Your task to perform on an android device: turn on data saver in the chrome app Image 0: 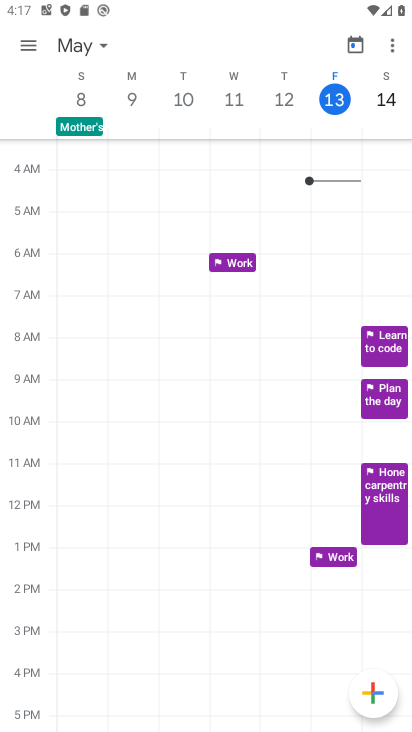
Step 0: press back button
Your task to perform on an android device: turn on data saver in the chrome app Image 1: 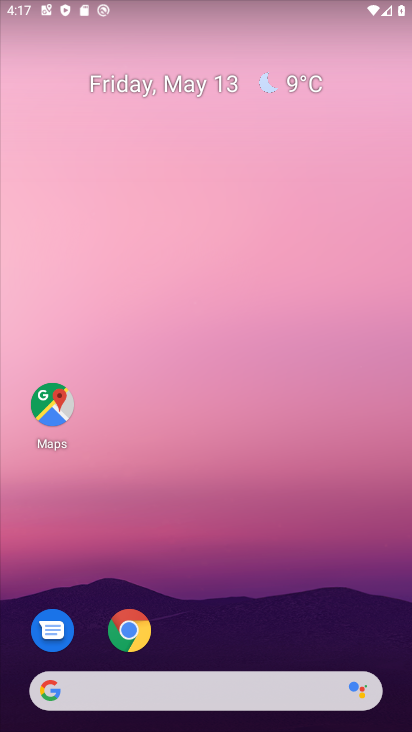
Step 1: drag from (246, 589) to (227, 51)
Your task to perform on an android device: turn on data saver in the chrome app Image 2: 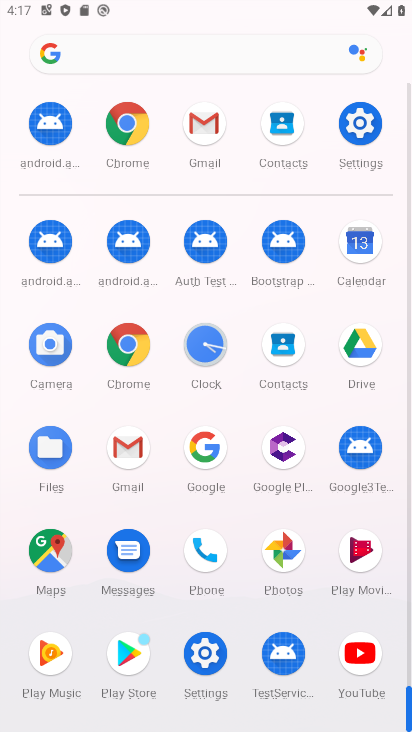
Step 2: click (125, 341)
Your task to perform on an android device: turn on data saver in the chrome app Image 3: 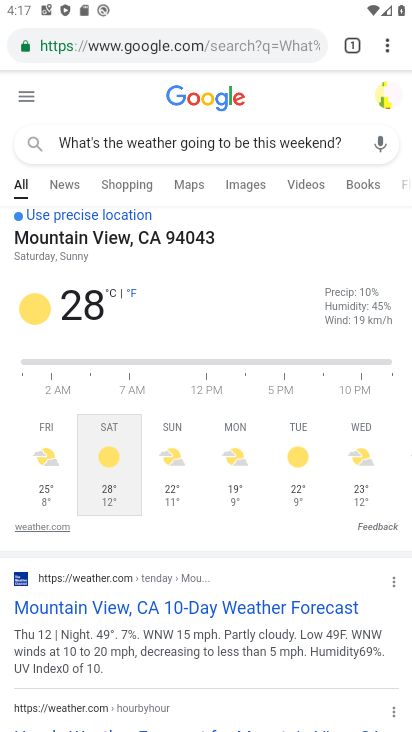
Step 3: drag from (379, 42) to (239, 499)
Your task to perform on an android device: turn on data saver in the chrome app Image 4: 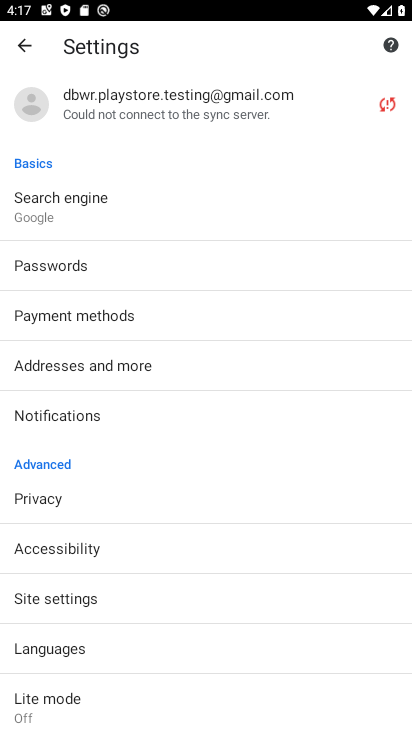
Step 4: drag from (194, 656) to (223, 244)
Your task to perform on an android device: turn on data saver in the chrome app Image 5: 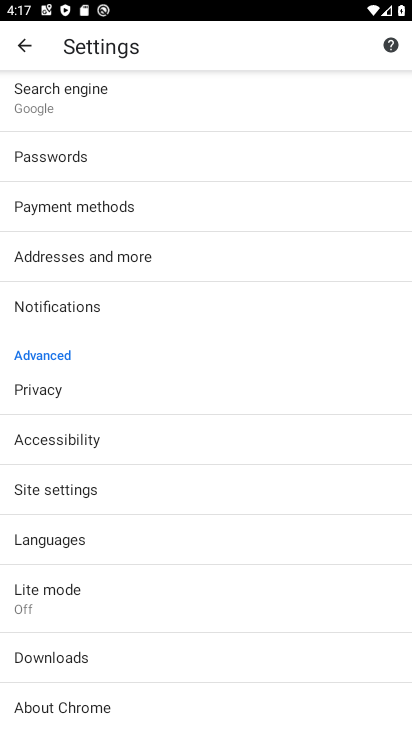
Step 5: click (118, 596)
Your task to perform on an android device: turn on data saver in the chrome app Image 6: 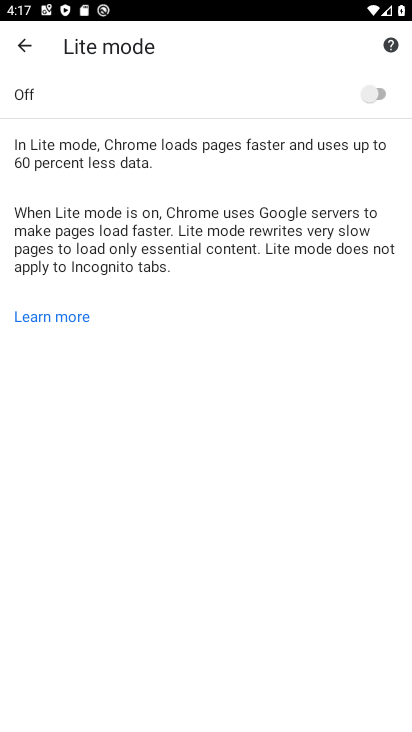
Step 6: click (376, 86)
Your task to perform on an android device: turn on data saver in the chrome app Image 7: 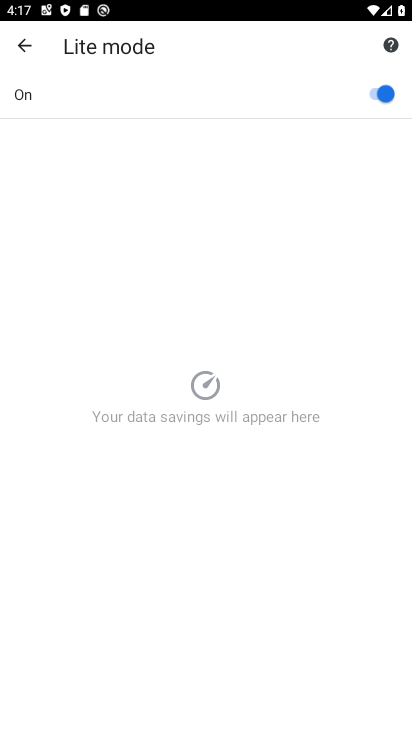
Step 7: task complete